Your task to perform on an android device: Set the phone to "Do not disturb". Image 0: 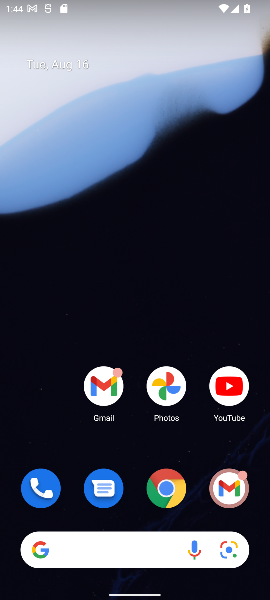
Step 0: drag from (50, 399) to (97, 140)
Your task to perform on an android device: Set the phone to "Do not disturb". Image 1: 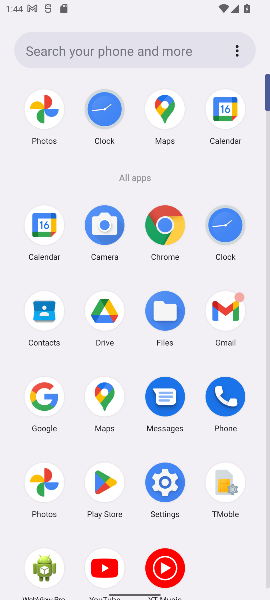
Step 1: click (163, 483)
Your task to perform on an android device: Set the phone to "Do not disturb". Image 2: 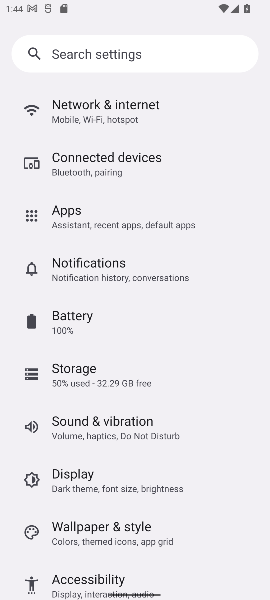
Step 2: task complete